Your task to perform on an android device: turn smart compose on in the gmail app Image 0: 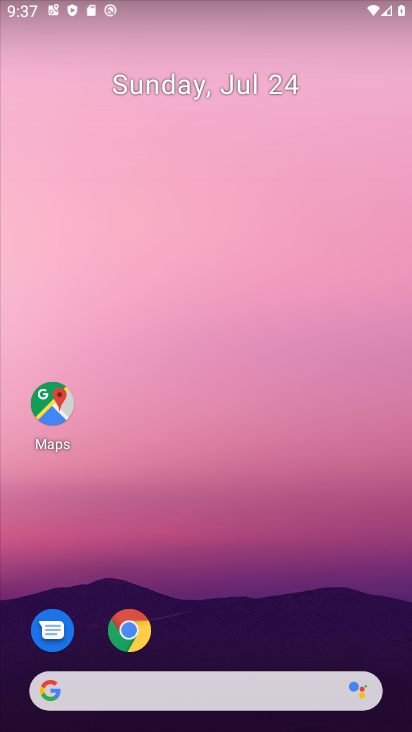
Step 0: drag from (219, 610) to (169, 10)
Your task to perform on an android device: turn smart compose on in the gmail app Image 1: 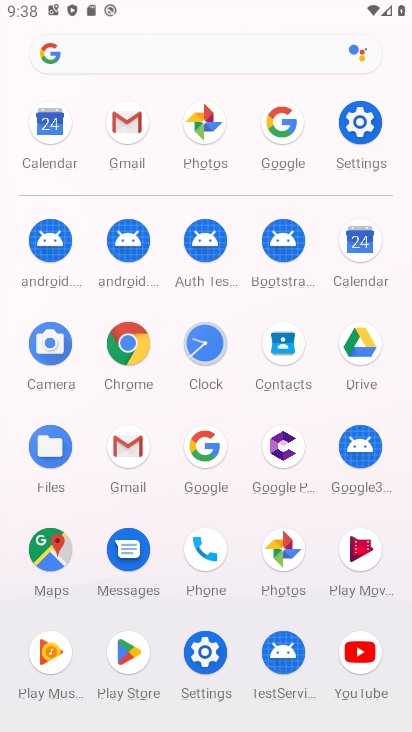
Step 1: click (138, 137)
Your task to perform on an android device: turn smart compose on in the gmail app Image 2: 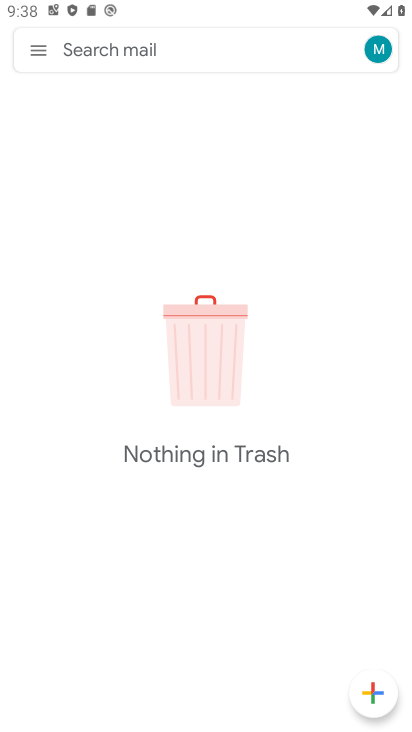
Step 2: click (41, 53)
Your task to perform on an android device: turn smart compose on in the gmail app Image 3: 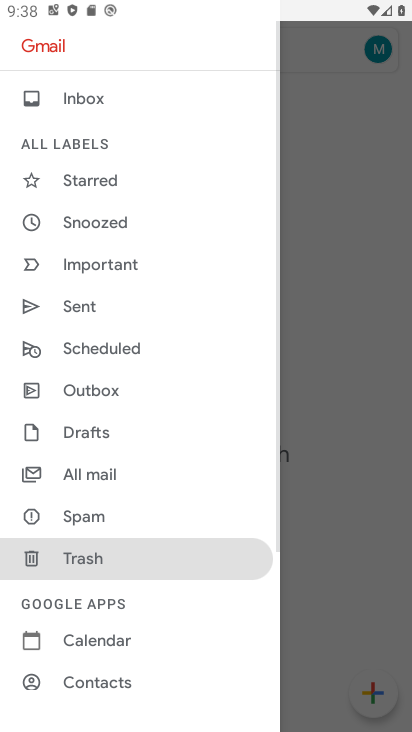
Step 3: drag from (101, 635) to (80, 219)
Your task to perform on an android device: turn smart compose on in the gmail app Image 4: 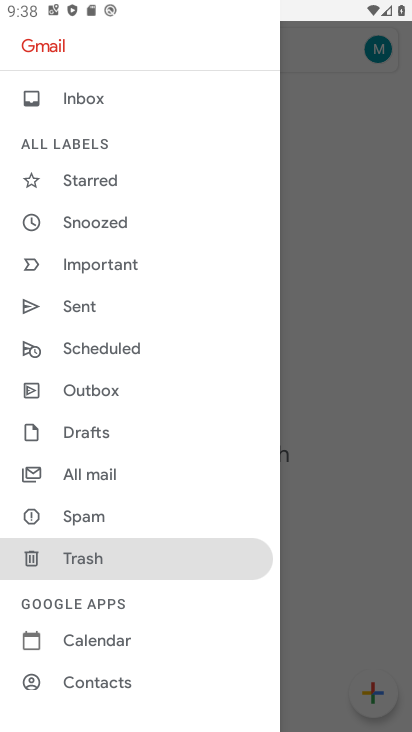
Step 4: drag from (107, 642) to (130, 234)
Your task to perform on an android device: turn smart compose on in the gmail app Image 5: 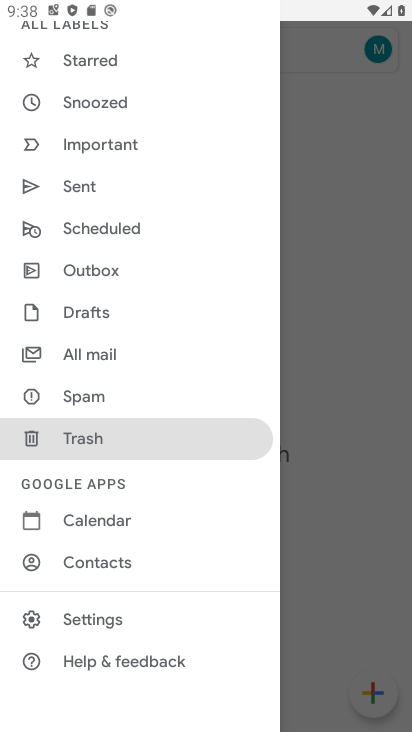
Step 5: click (104, 617)
Your task to perform on an android device: turn smart compose on in the gmail app Image 6: 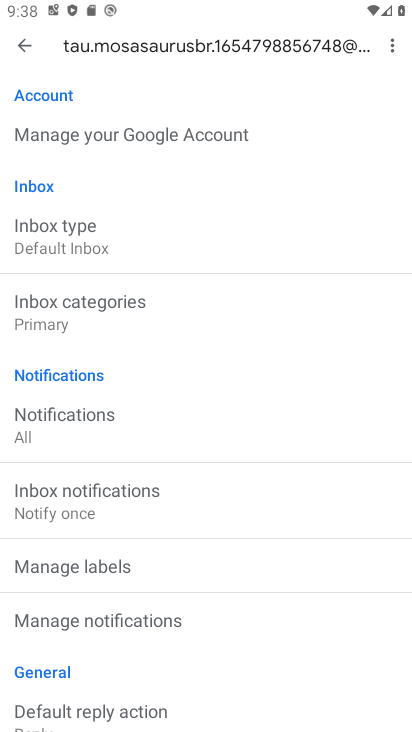
Step 6: task complete